Your task to perform on an android device: turn on notifications settings in the gmail app Image 0: 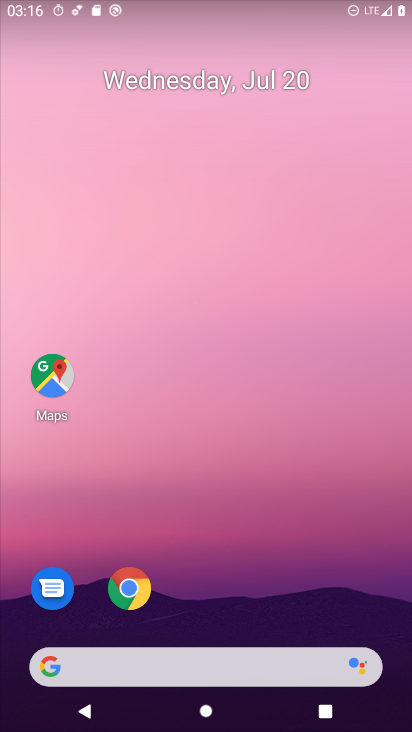
Step 0: drag from (176, 616) to (158, 13)
Your task to perform on an android device: turn on notifications settings in the gmail app Image 1: 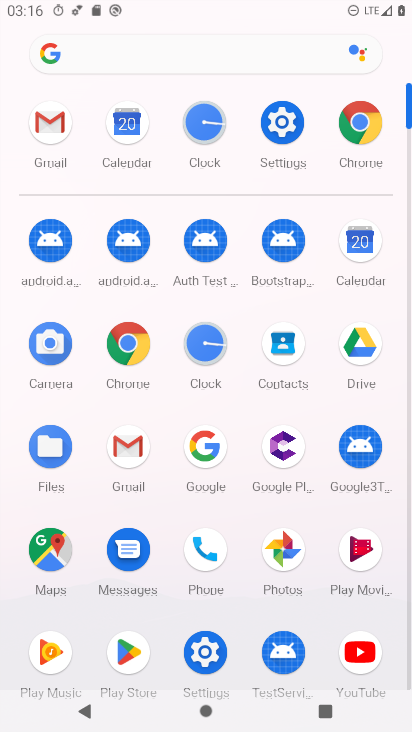
Step 1: click (123, 445)
Your task to perform on an android device: turn on notifications settings in the gmail app Image 2: 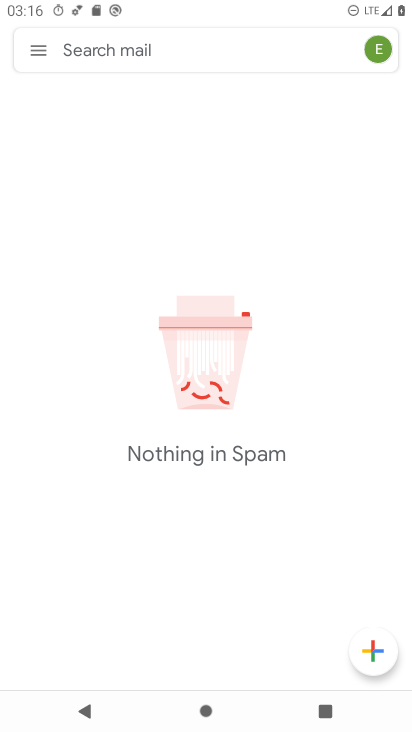
Step 2: click (31, 56)
Your task to perform on an android device: turn on notifications settings in the gmail app Image 3: 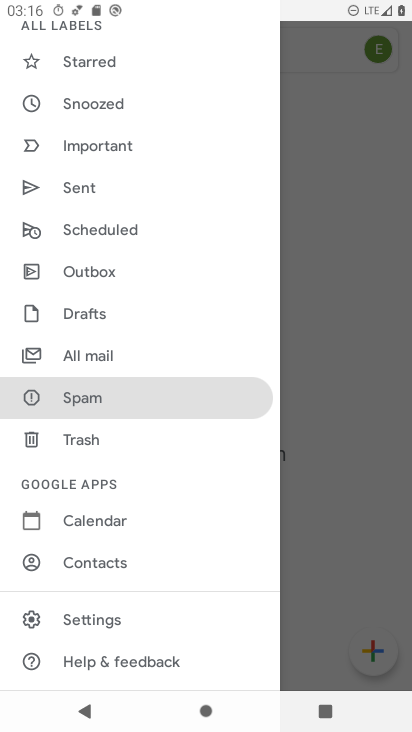
Step 3: click (90, 623)
Your task to perform on an android device: turn on notifications settings in the gmail app Image 4: 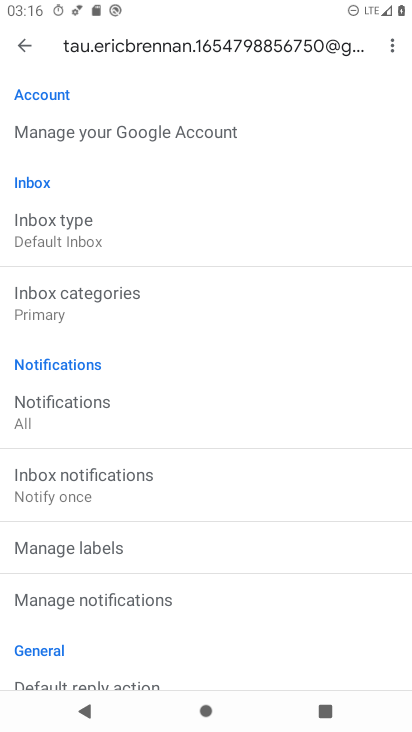
Step 4: click (22, 48)
Your task to perform on an android device: turn on notifications settings in the gmail app Image 5: 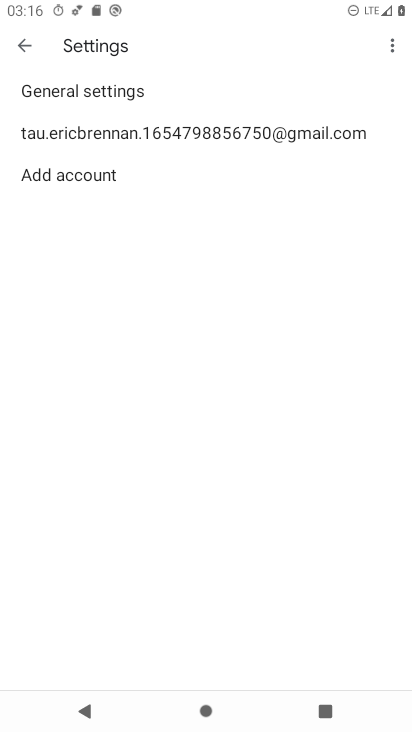
Step 5: click (57, 89)
Your task to perform on an android device: turn on notifications settings in the gmail app Image 6: 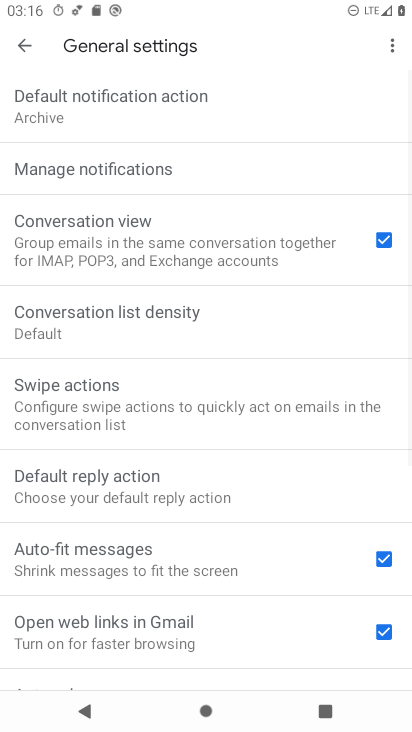
Step 6: click (88, 179)
Your task to perform on an android device: turn on notifications settings in the gmail app Image 7: 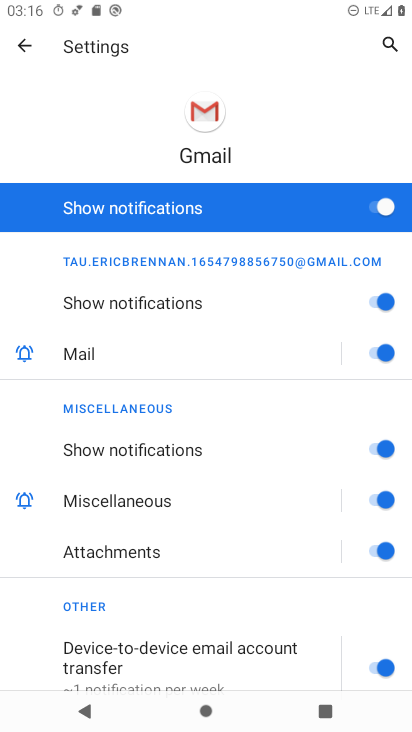
Step 7: task complete